Your task to perform on an android device: Open settings Image 0: 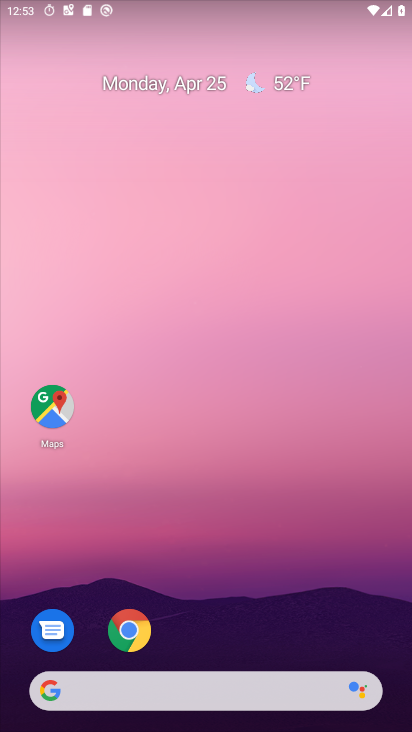
Step 0: drag from (224, 609) to (51, 356)
Your task to perform on an android device: Open settings Image 1: 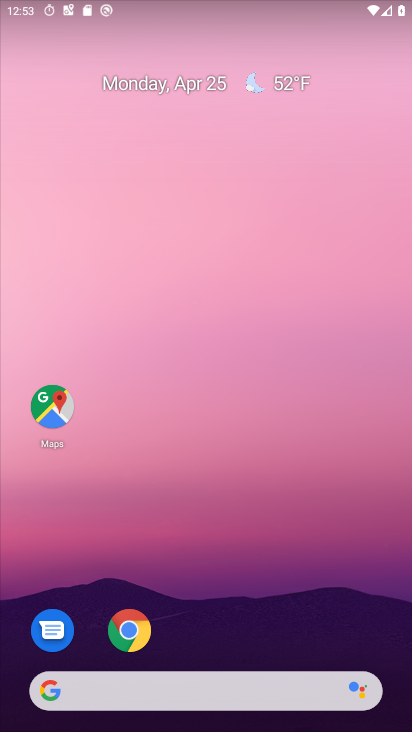
Step 1: drag from (154, 594) to (15, 55)
Your task to perform on an android device: Open settings Image 2: 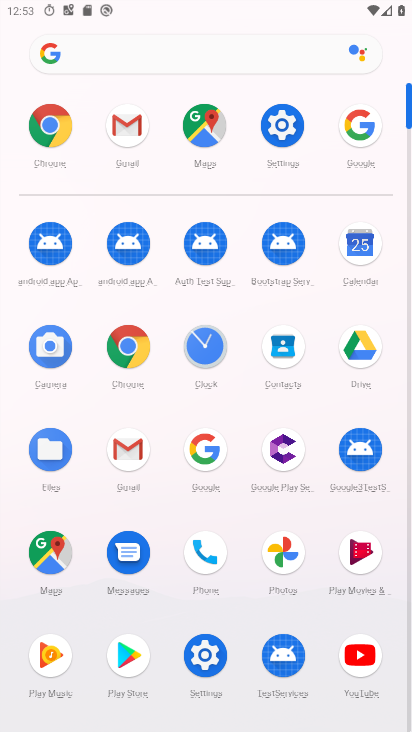
Step 2: click (281, 120)
Your task to perform on an android device: Open settings Image 3: 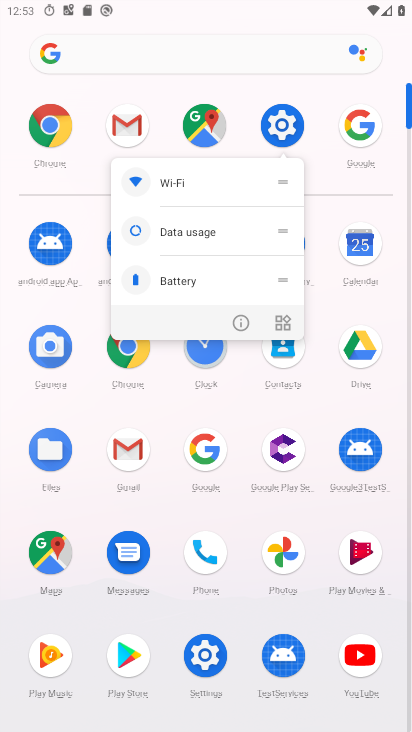
Step 3: click (233, 319)
Your task to perform on an android device: Open settings Image 4: 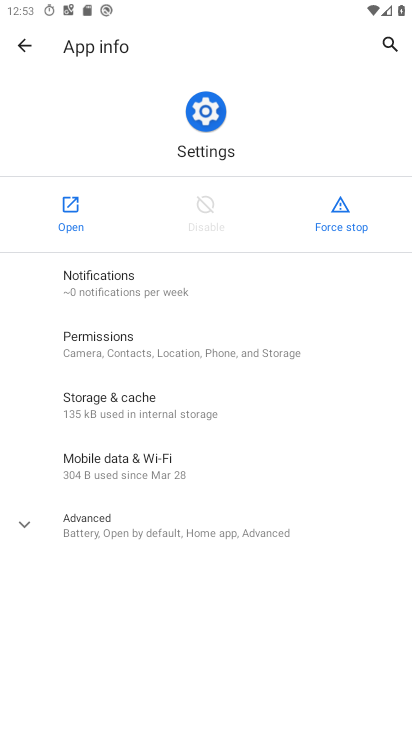
Step 4: click (77, 217)
Your task to perform on an android device: Open settings Image 5: 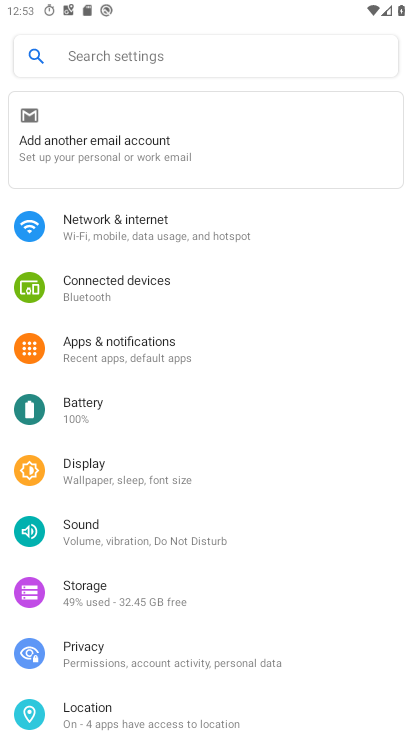
Step 5: task complete